Your task to perform on an android device: add a label to a message in the gmail app Image 0: 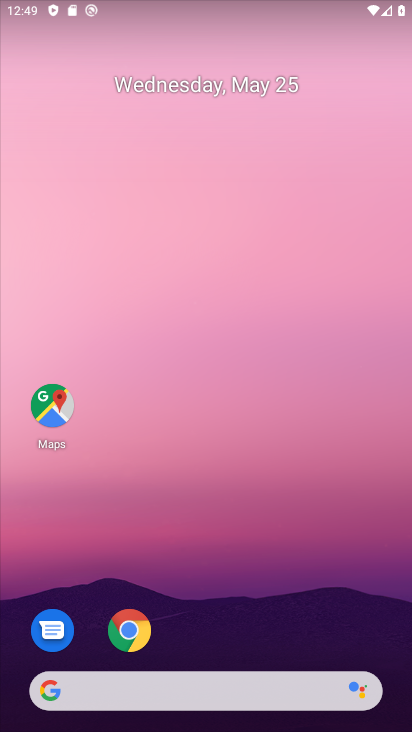
Step 0: drag from (251, 407) to (263, 18)
Your task to perform on an android device: add a label to a message in the gmail app Image 1: 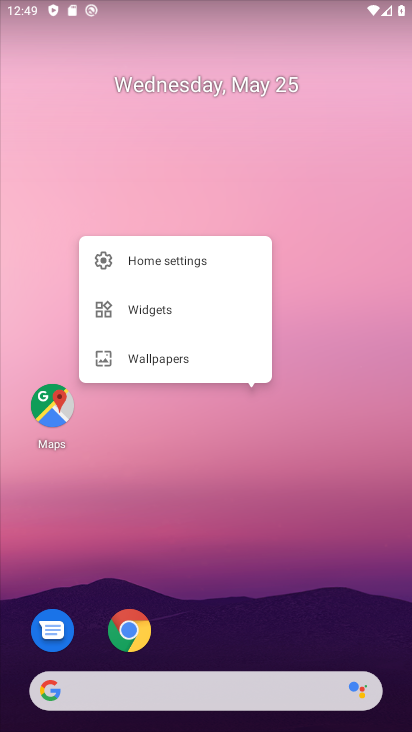
Step 1: press back button
Your task to perform on an android device: add a label to a message in the gmail app Image 2: 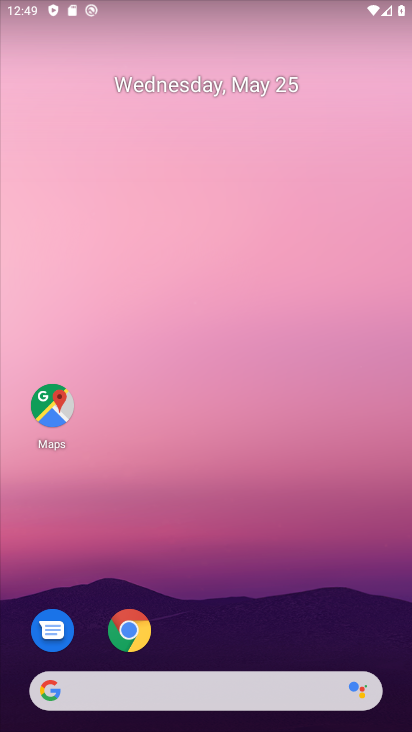
Step 2: click (209, 174)
Your task to perform on an android device: add a label to a message in the gmail app Image 3: 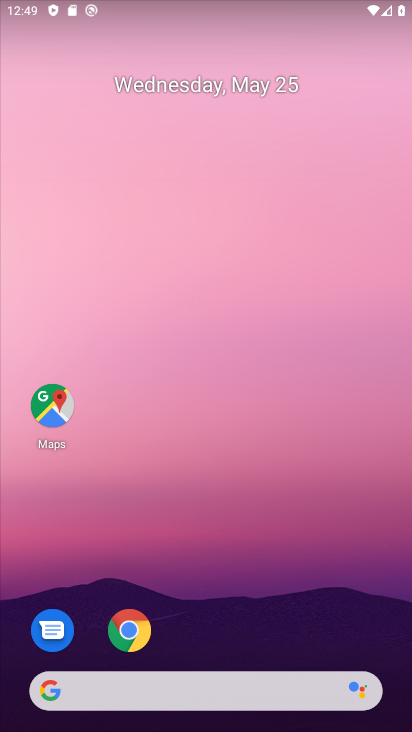
Step 3: drag from (334, 597) to (211, 15)
Your task to perform on an android device: add a label to a message in the gmail app Image 4: 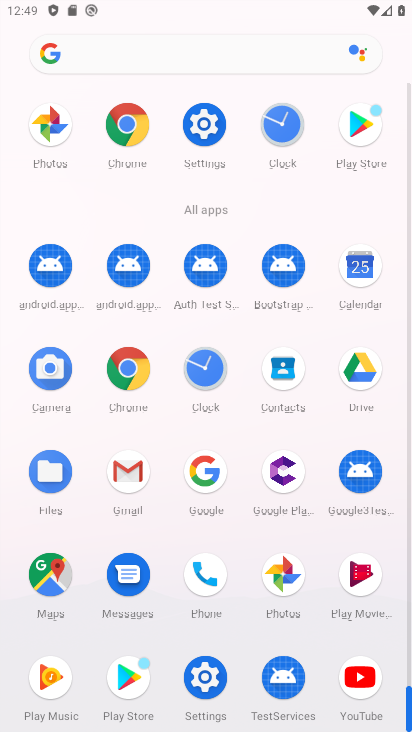
Step 4: click (133, 470)
Your task to perform on an android device: add a label to a message in the gmail app Image 5: 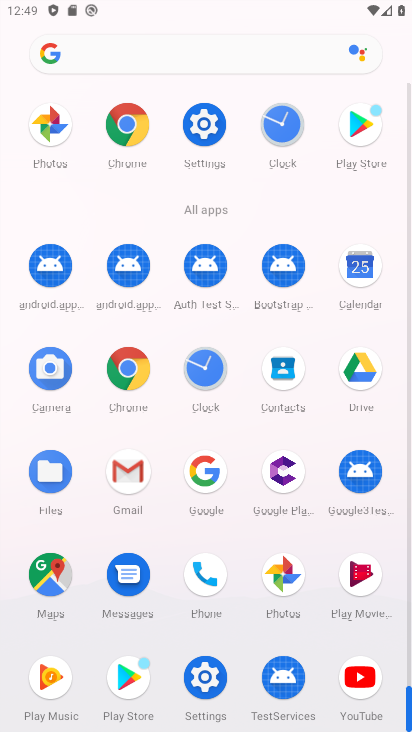
Step 5: click (133, 470)
Your task to perform on an android device: add a label to a message in the gmail app Image 6: 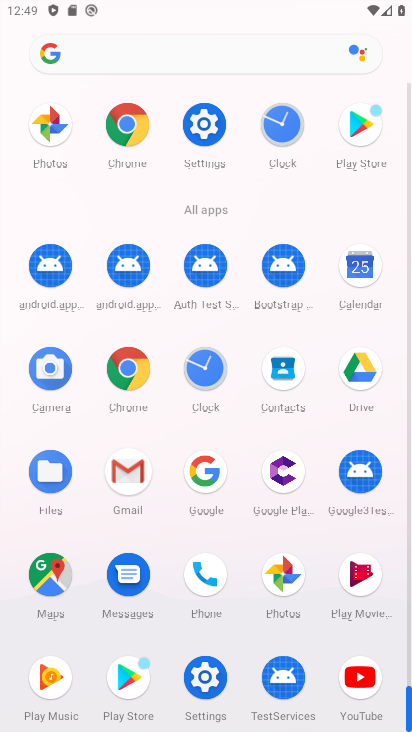
Step 6: click (133, 470)
Your task to perform on an android device: add a label to a message in the gmail app Image 7: 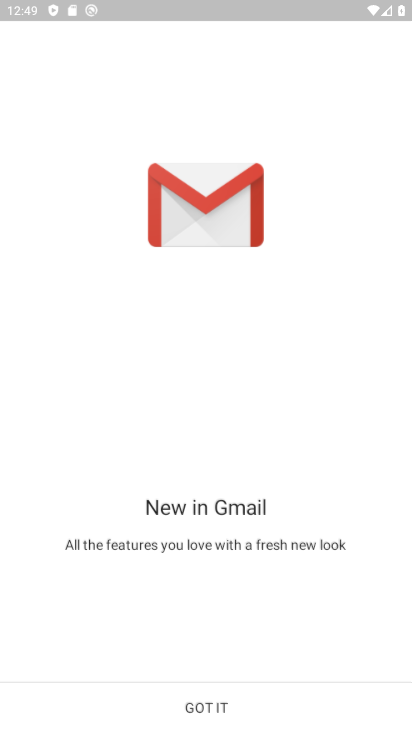
Step 7: click (138, 472)
Your task to perform on an android device: add a label to a message in the gmail app Image 8: 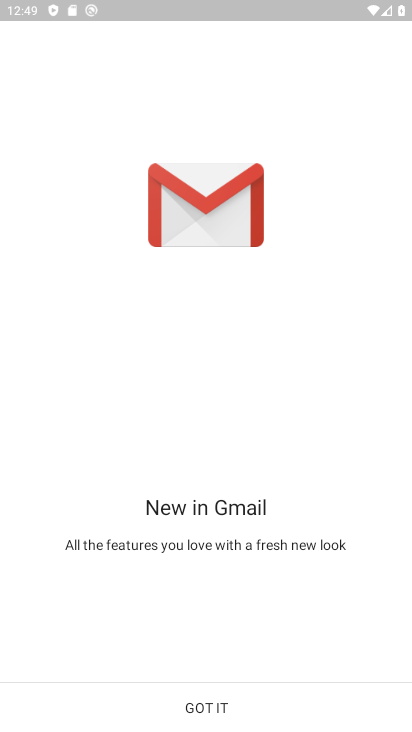
Step 8: click (217, 700)
Your task to perform on an android device: add a label to a message in the gmail app Image 9: 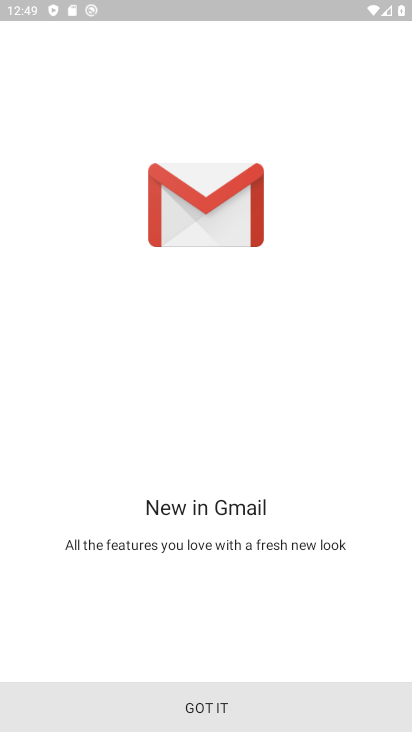
Step 9: click (219, 696)
Your task to perform on an android device: add a label to a message in the gmail app Image 10: 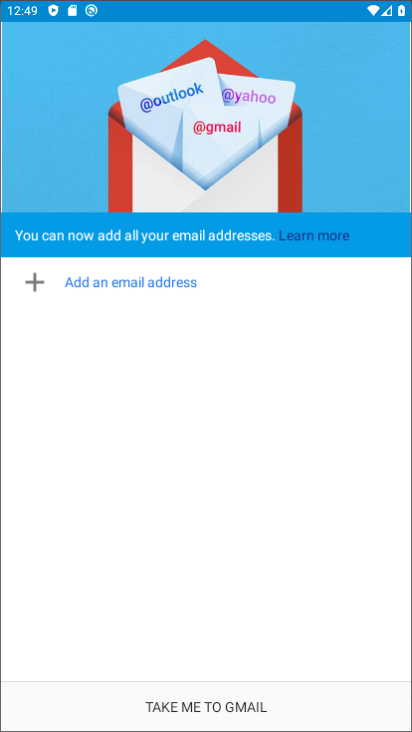
Step 10: click (224, 689)
Your task to perform on an android device: add a label to a message in the gmail app Image 11: 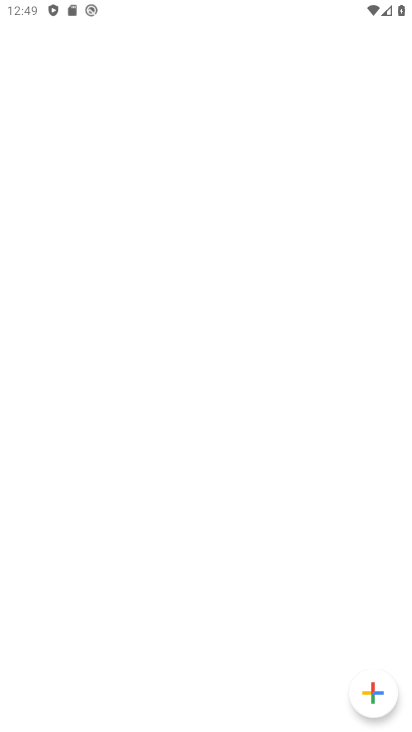
Step 11: click (227, 704)
Your task to perform on an android device: add a label to a message in the gmail app Image 12: 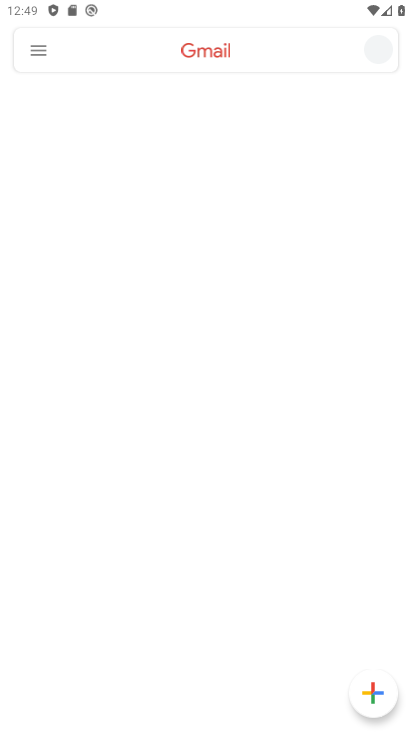
Step 12: click (233, 699)
Your task to perform on an android device: add a label to a message in the gmail app Image 13: 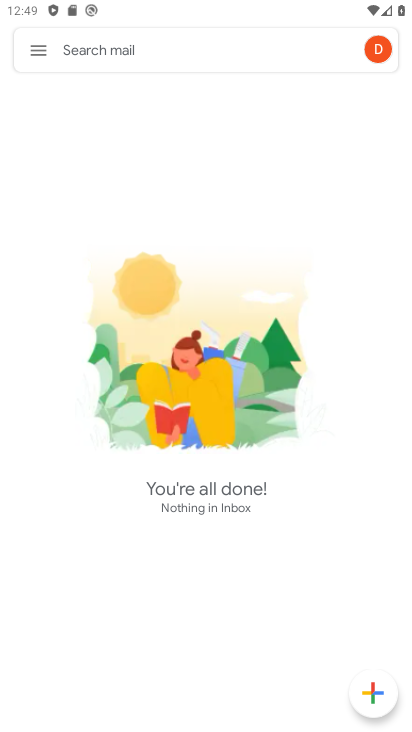
Step 13: click (39, 51)
Your task to perform on an android device: add a label to a message in the gmail app Image 14: 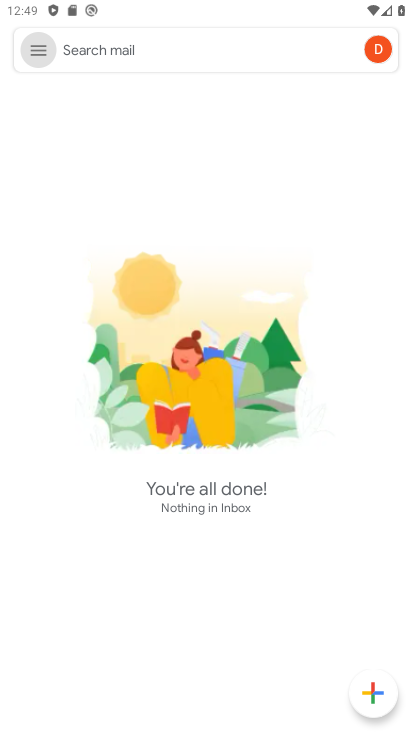
Step 14: click (47, 49)
Your task to perform on an android device: add a label to a message in the gmail app Image 15: 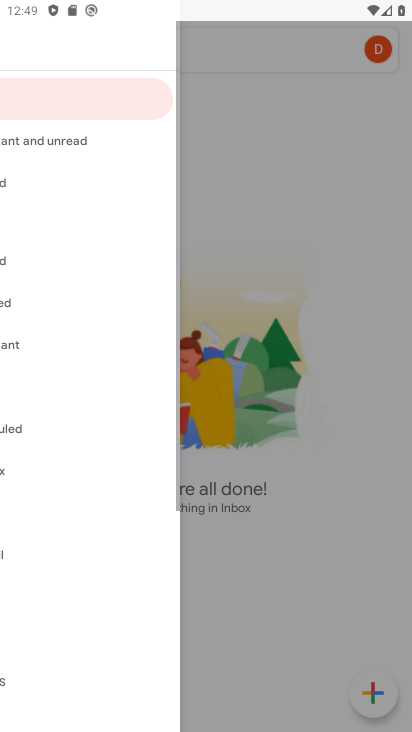
Step 15: click (48, 49)
Your task to perform on an android device: add a label to a message in the gmail app Image 16: 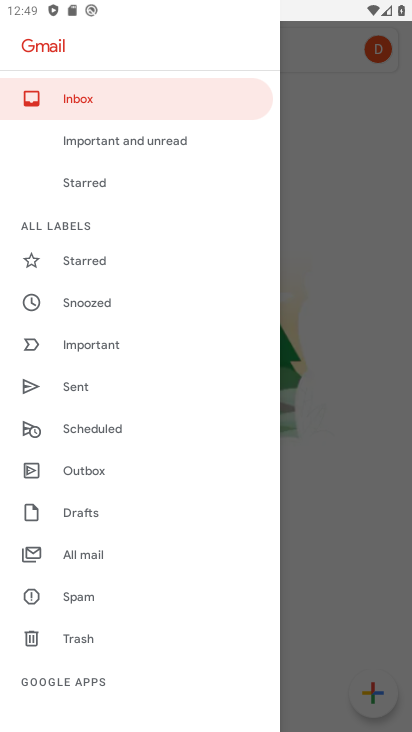
Step 16: drag from (68, 572) to (67, 163)
Your task to perform on an android device: add a label to a message in the gmail app Image 17: 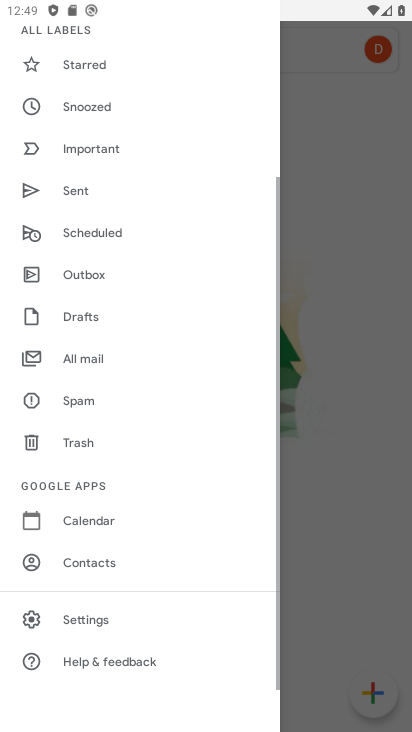
Step 17: drag from (94, 400) to (108, 132)
Your task to perform on an android device: add a label to a message in the gmail app Image 18: 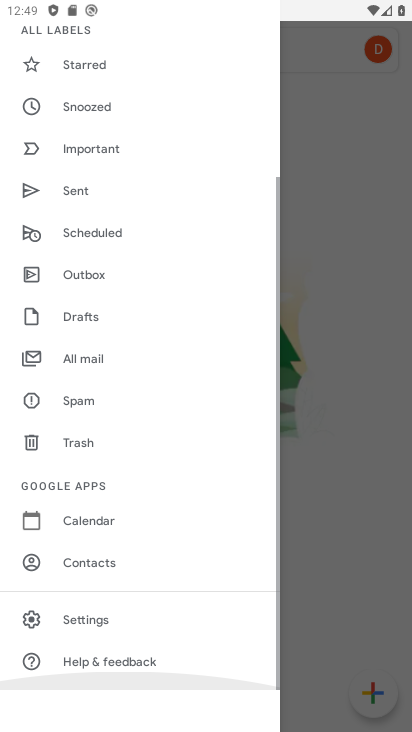
Step 18: drag from (140, 548) to (133, 162)
Your task to perform on an android device: add a label to a message in the gmail app Image 19: 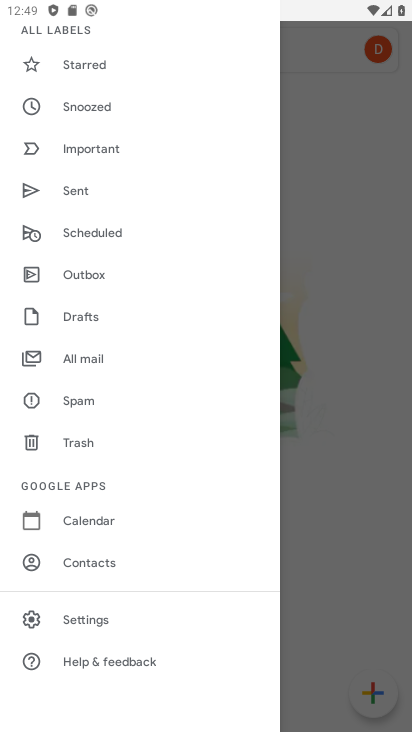
Step 19: click (80, 352)
Your task to perform on an android device: add a label to a message in the gmail app Image 20: 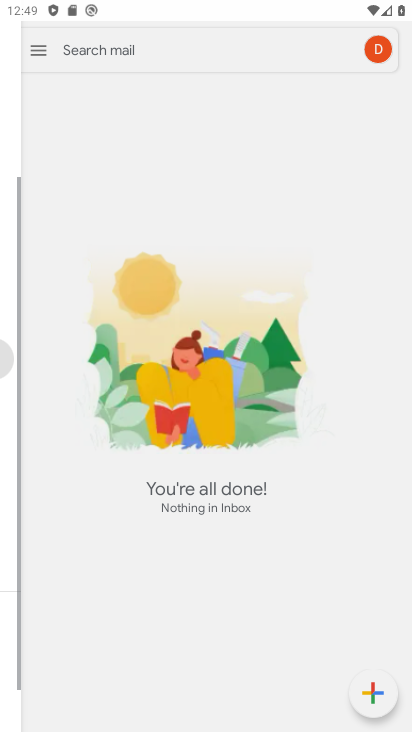
Step 20: click (80, 352)
Your task to perform on an android device: add a label to a message in the gmail app Image 21: 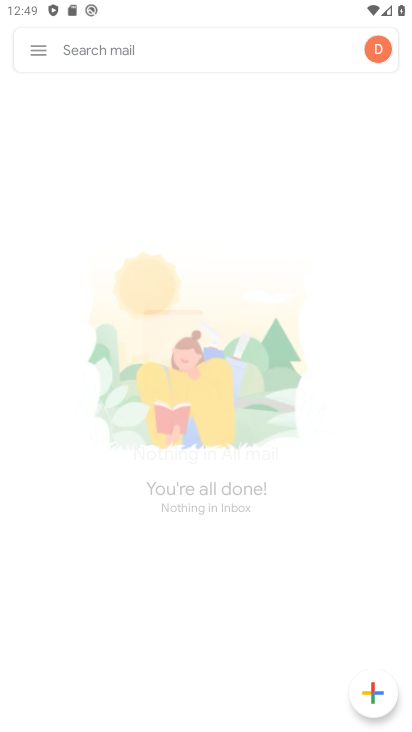
Step 21: click (83, 350)
Your task to perform on an android device: add a label to a message in the gmail app Image 22: 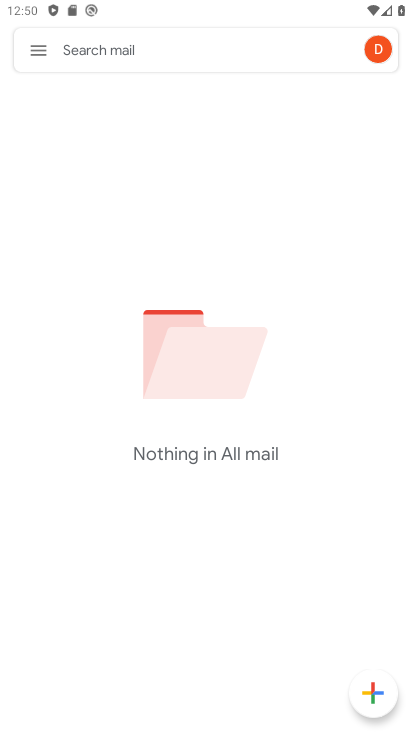
Step 22: task complete